Your task to perform on an android device: check storage Image 0: 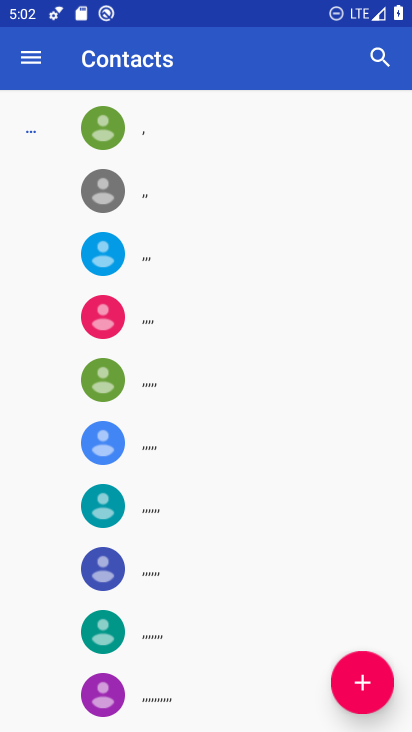
Step 0: press home button
Your task to perform on an android device: check storage Image 1: 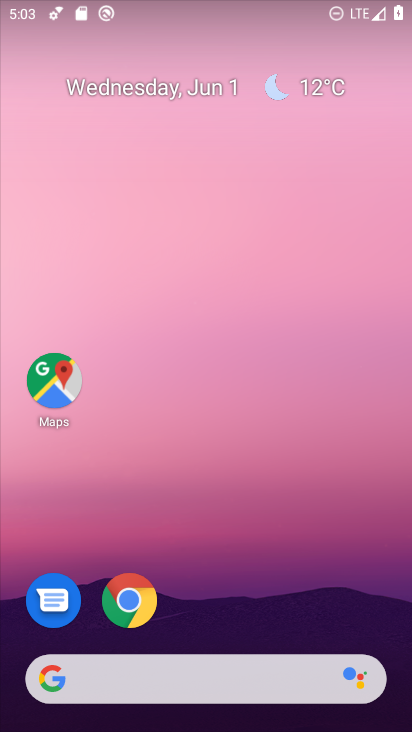
Step 1: drag from (390, 626) to (331, 36)
Your task to perform on an android device: check storage Image 2: 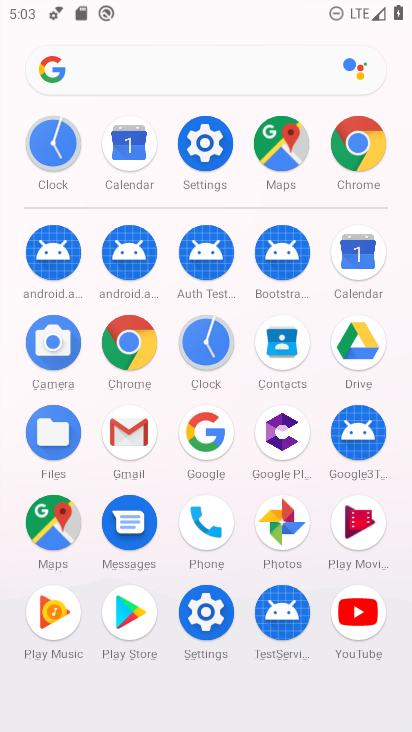
Step 2: click (206, 611)
Your task to perform on an android device: check storage Image 3: 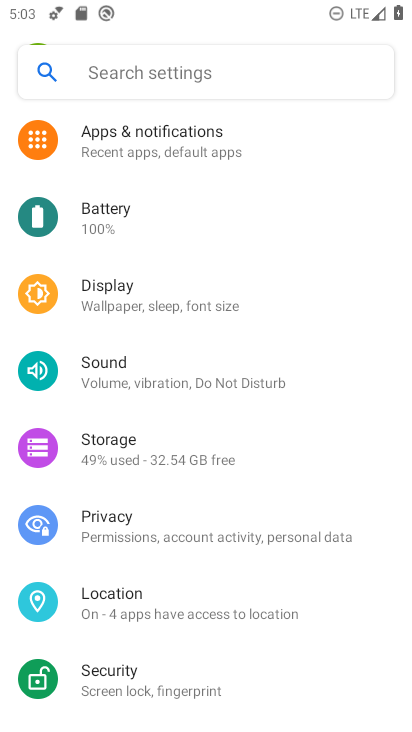
Step 3: drag from (287, 628) to (318, 198)
Your task to perform on an android device: check storage Image 4: 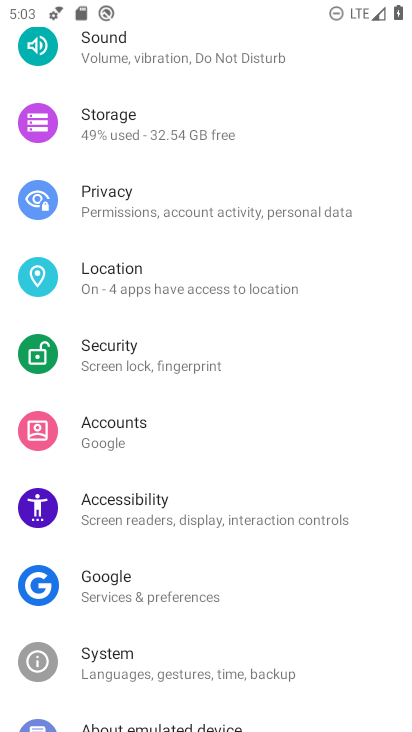
Step 4: click (119, 119)
Your task to perform on an android device: check storage Image 5: 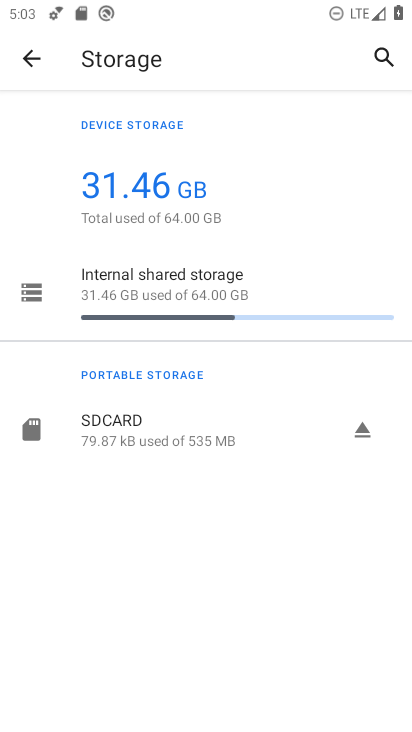
Step 5: task complete